Your task to perform on an android device: toggle priority inbox in the gmail app Image 0: 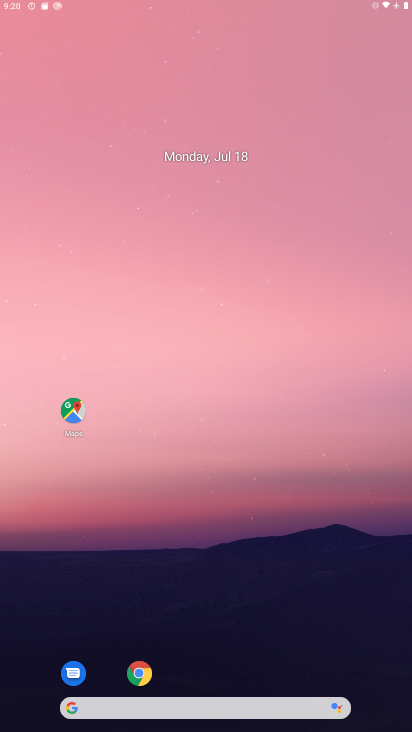
Step 0: press home button
Your task to perform on an android device: toggle priority inbox in the gmail app Image 1: 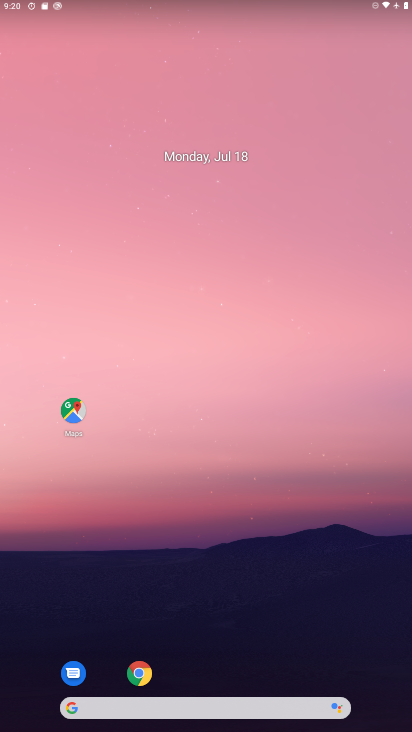
Step 1: drag from (239, 672) to (224, 126)
Your task to perform on an android device: toggle priority inbox in the gmail app Image 2: 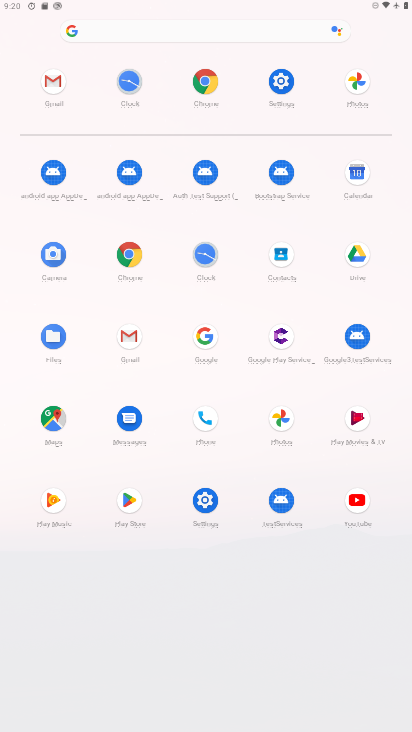
Step 2: click (55, 85)
Your task to perform on an android device: toggle priority inbox in the gmail app Image 3: 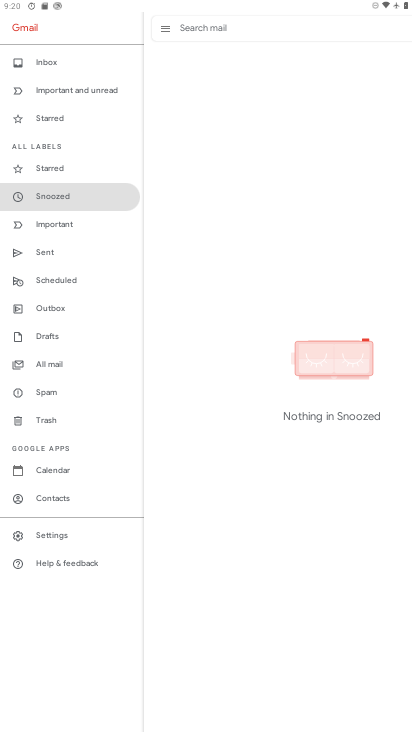
Step 3: click (55, 532)
Your task to perform on an android device: toggle priority inbox in the gmail app Image 4: 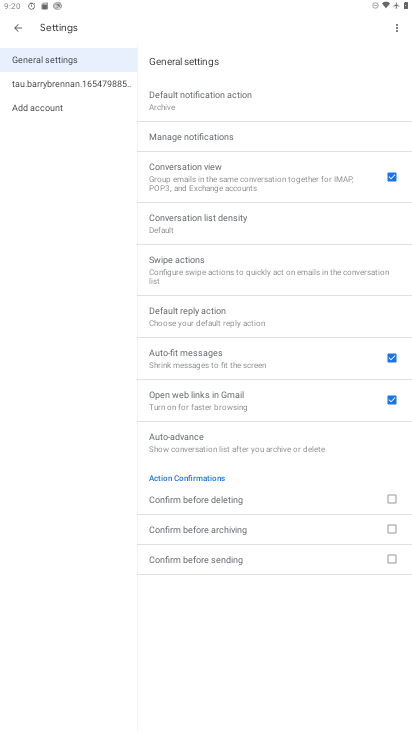
Step 4: click (36, 85)
Your task to perform on an android device: toggle priority inbox in the gmail app Image 5: 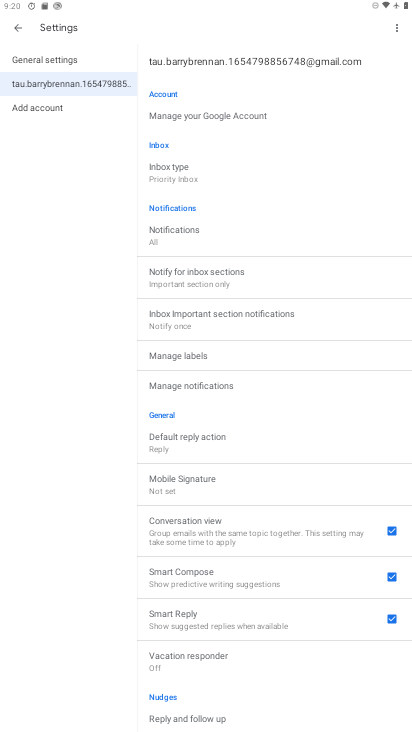
Step 5: click (183, 174)
Your task to perform on an android device: toggle priority inbox in the gmail app Image 6: 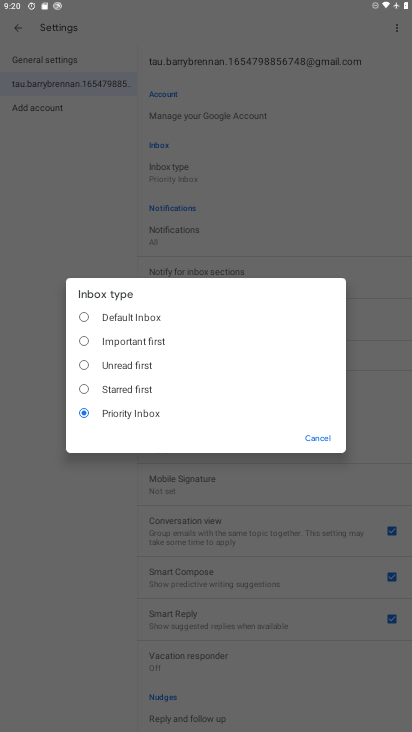
Step 6: click (79, 312)
Your task to perform on an android device: toggle priority inbox in the gmail app Image 7: 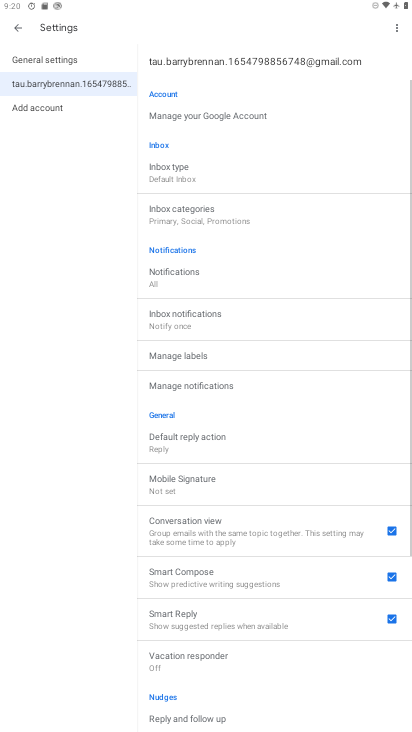
Step 7: task complete